Your task to perform on an android device: change the clock display to digital Image 0: 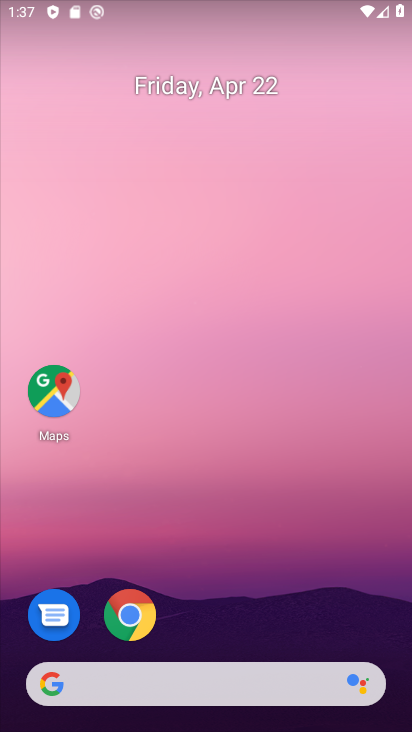
Step 0: drag from (207, 665) to (332, 130)
Your task to perform on an android device: change the clock display to digital Image 1: 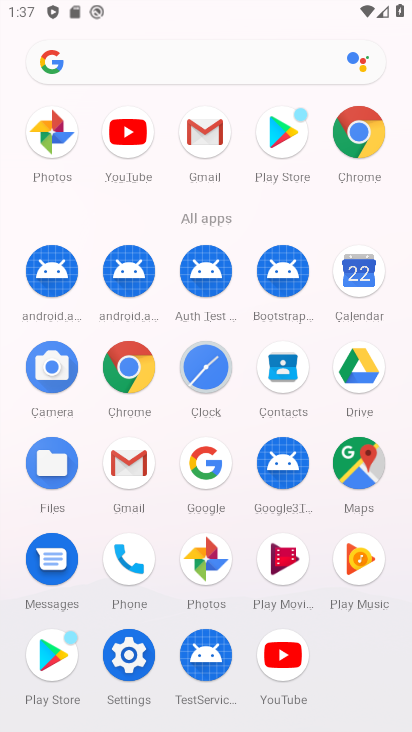
Step 1: click (209, 373)
Your task to perform on an android device: change the clock display to digital Image 2: 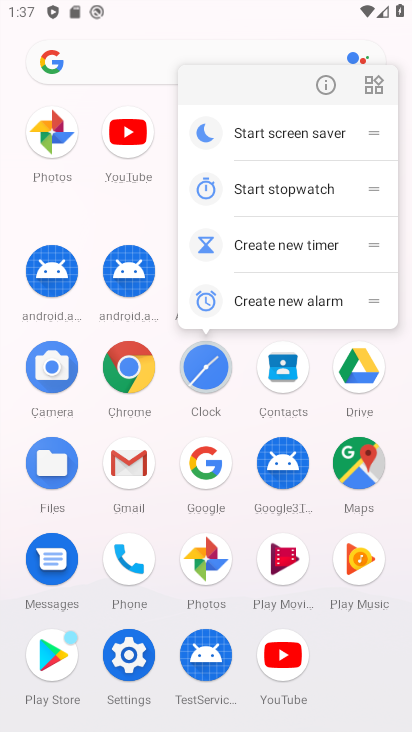
Step 2: click (211, 362)
Your task to perform on an android device: change the clock display to digital Image 3: 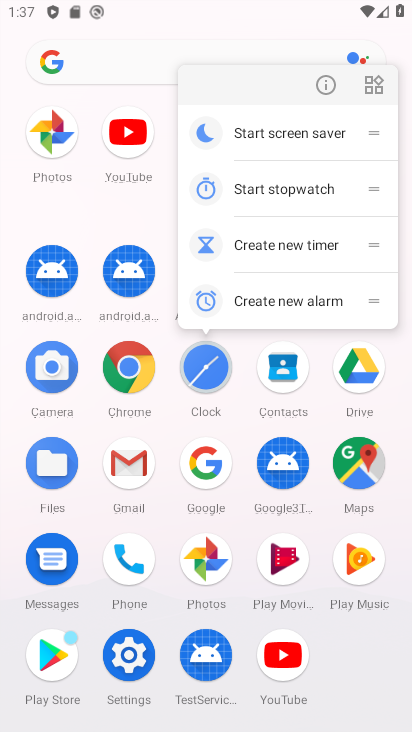
Step 3: click (211, 362)
Your task to perform on an android device: change the clock display to digital Image 4: 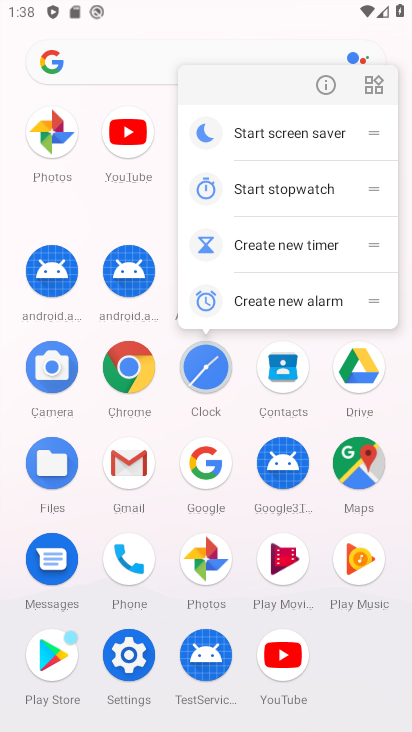
Step 4: click (201, 362)
Your task to perform on an android device: change the clock display to digital Image 5: 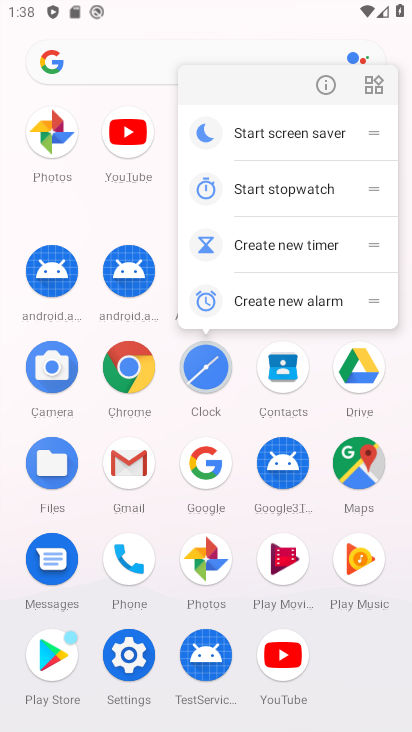
Step 5: click (201, 358)
Your task to perform on an android device: change the clock display to digital Image 6: 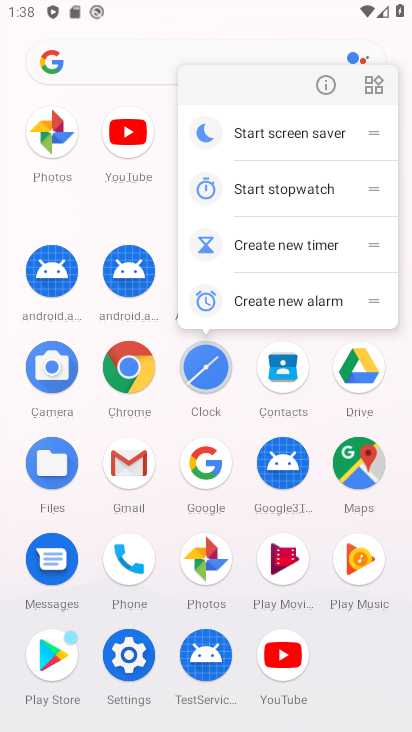
Step 6: click (220, 382)
Your task to perform on an android device: change the clock display to digital Image 7: 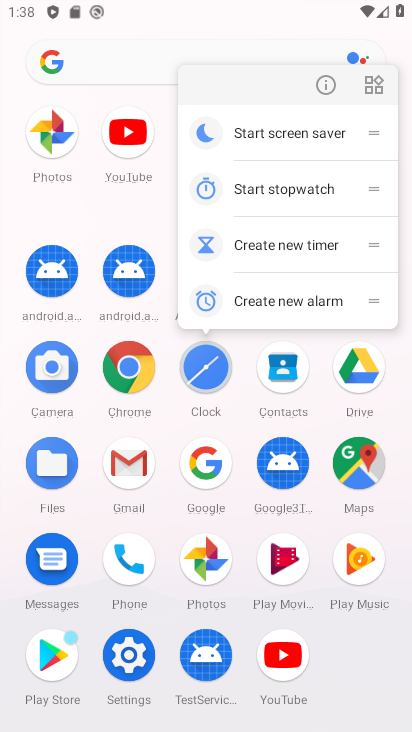
Step 7: click (214, 383)
Your task to perform on an android device: change the clock display to digital Image 8: 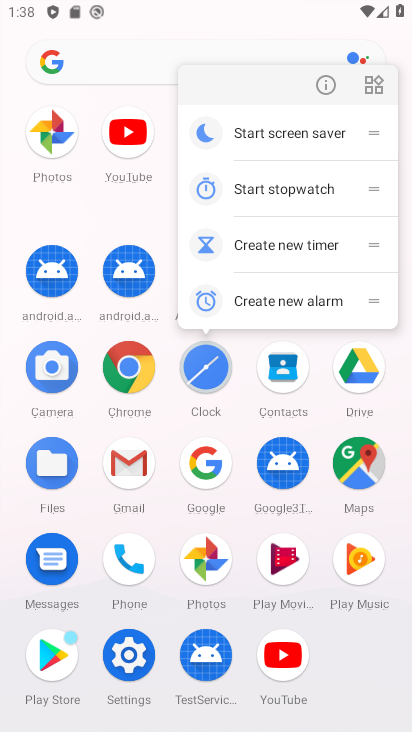
Step 8: click (214, 381)
Your task to perform on an android device: change the clock display to digital Image 9: 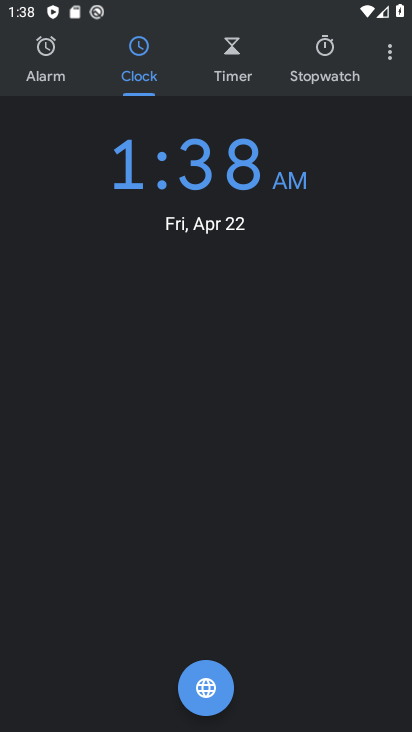
Step 9: click (395, 59)
Your task to perform on an android device: change the clock display to digital Image 10: 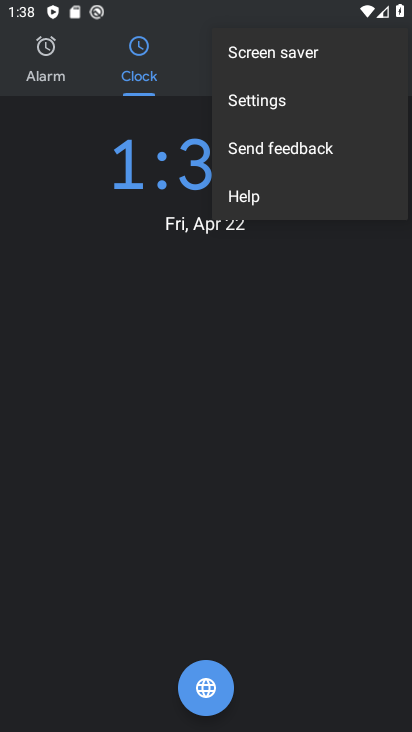
Step 10: click (301, 100)
Your task to perform on an android device: change the clock display to digital Image 11: 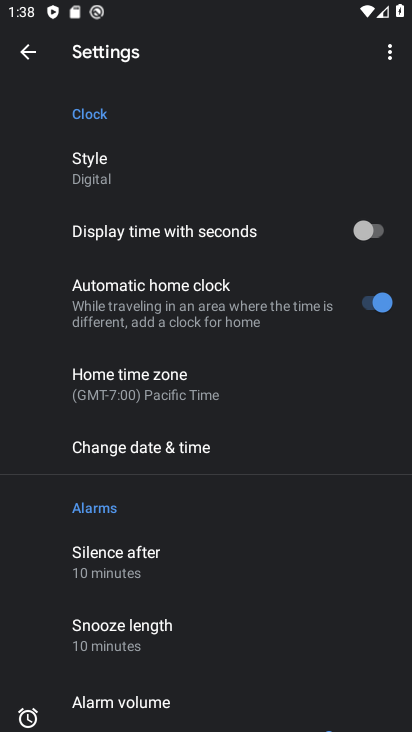
Step 11: task complete